Your task to perform on an android device: find photos in the google photos app Image 0: 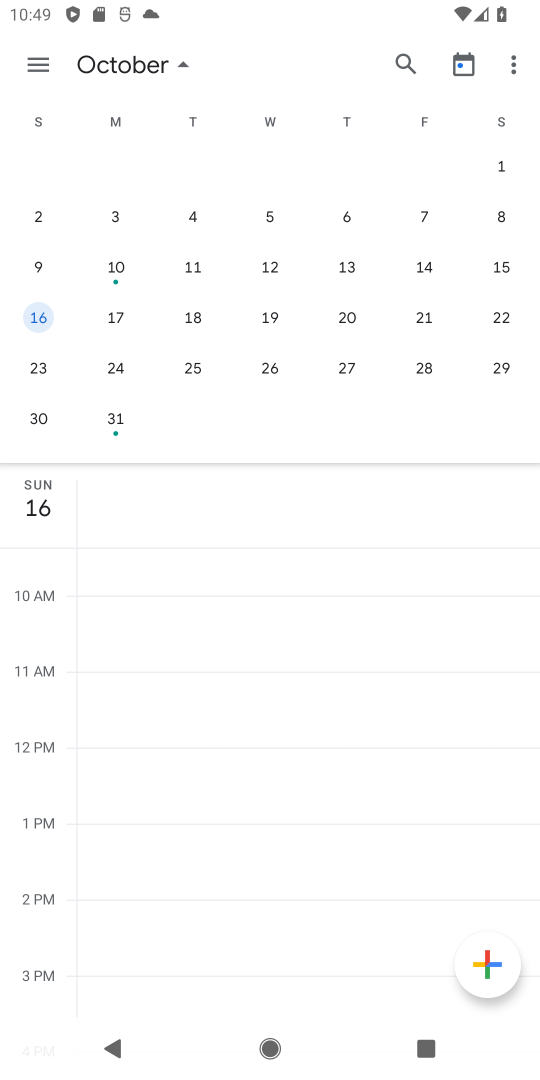
Step 0: press home button
Your task to perform on an android device: find photos in the google photos app Image 1: 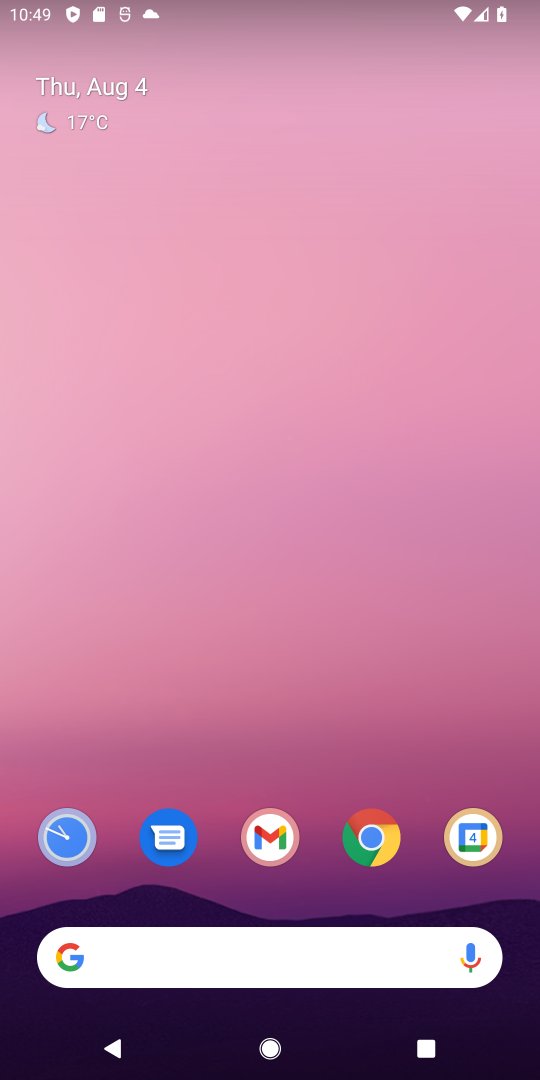
Step 1: drag from (426, 883) to (204, 101)
Your task to perform on an android device: find photos in the google photos app Image 2: 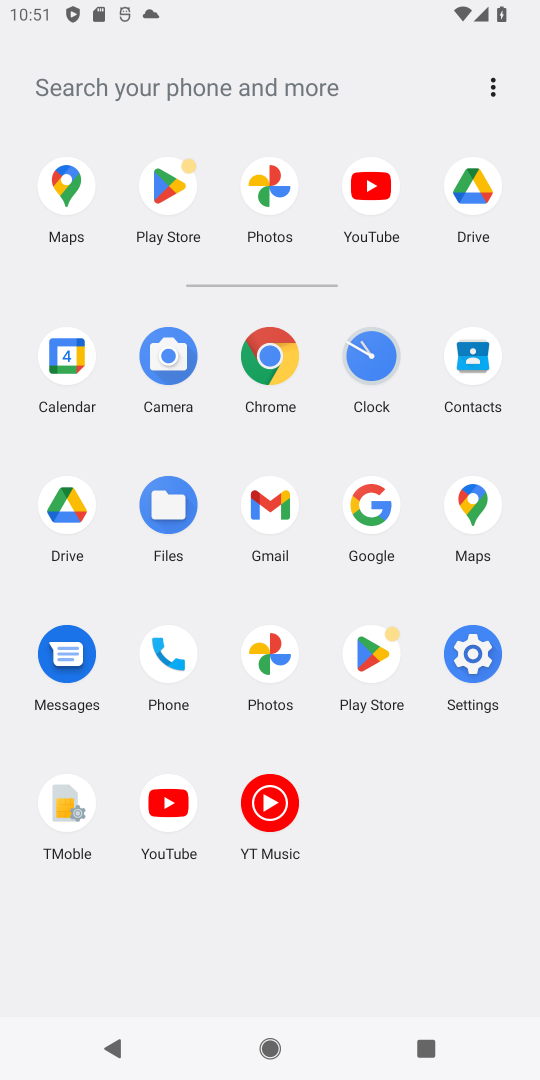
Step 2: click (255, 641)
Your task to perform on an android device: find photos in the google photos app Image 3: 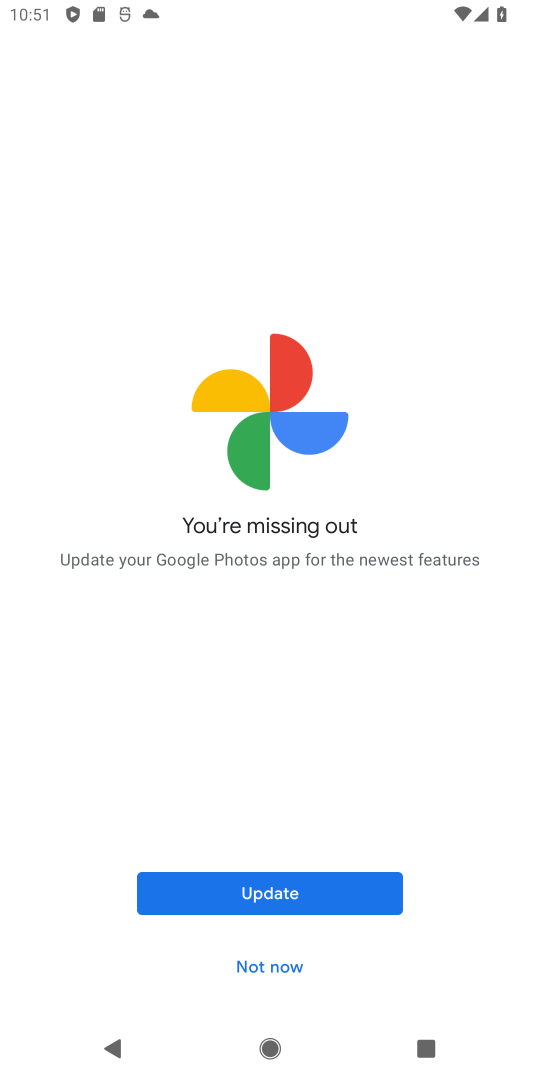
Step 3: task complete